Your task to perform on an android device: see tabs open on other devices in the chrome app Image 0: 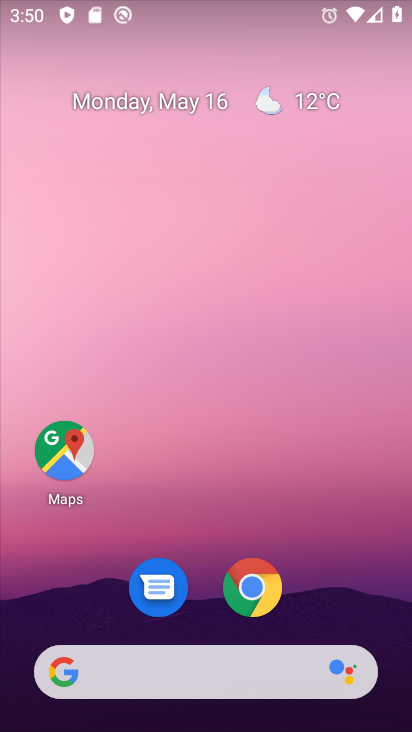
Step 0: click (250, 587)
Your task to perform on an android device: see tabs open on other devices in the chrome app Image 1: 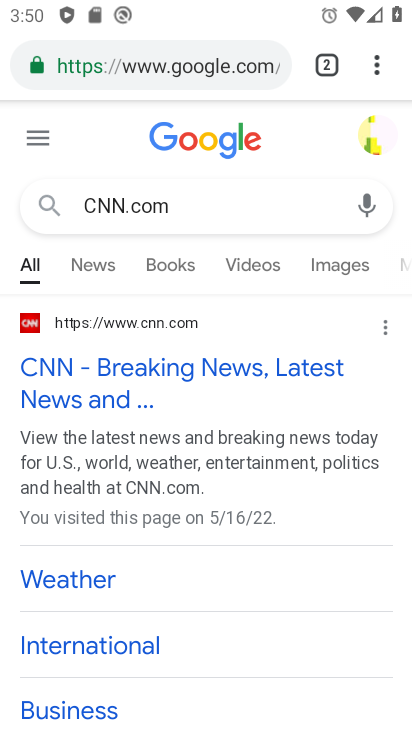
Step 1: click (380, 62)
Your task to perform on an android device: see tabs open on other devices in the chrome app Image 2: 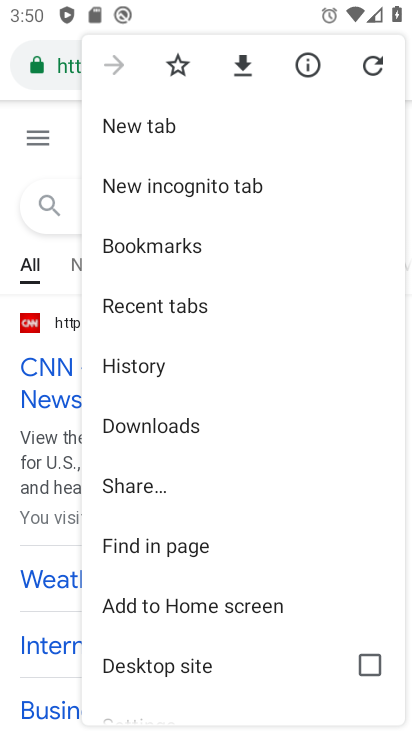
Step 2: click (159, 311)
Your task to perform on an android device: see tabs open on other devices in the chrome app Image 3: 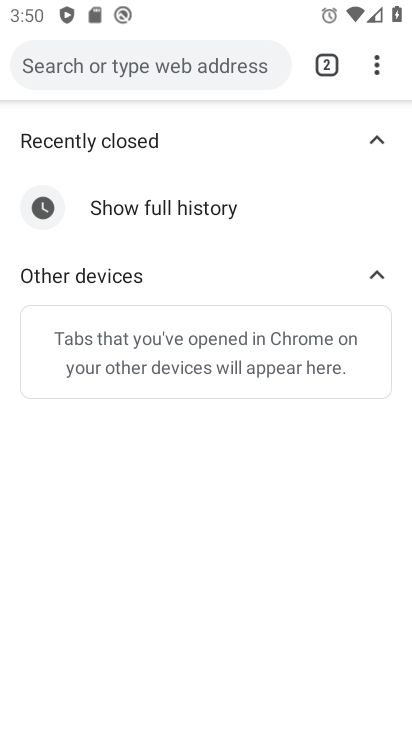
Step 3: task complete